Your task to perform on an android device: See recent photos Image 0: 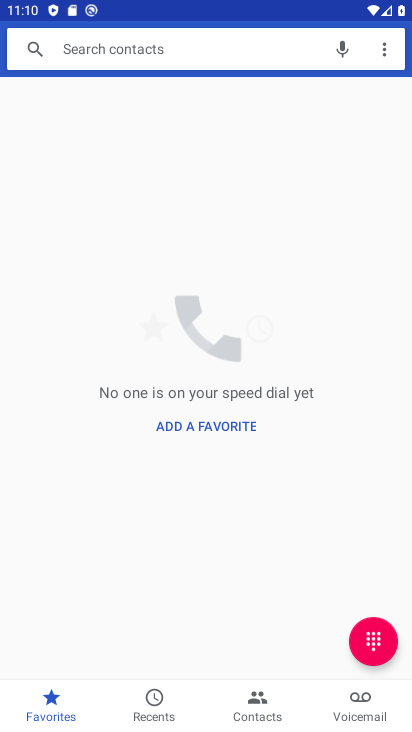
Step 0: press back button
Your task to perform on an android device: See recent photos Image 1: 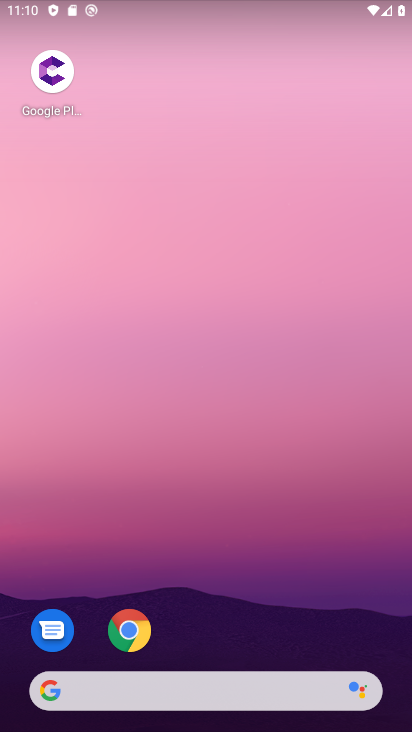
Step 1: drag from (153, 662) to (282, 44)
Your task to perform on an android device: See recent photos Image 2: 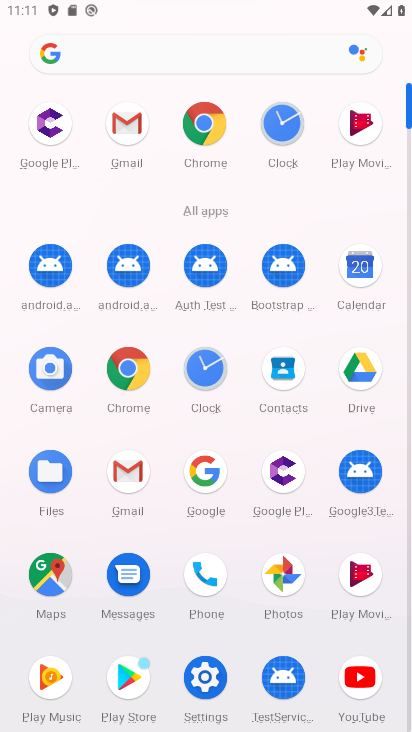
Step 2: click (283, 588)
Your task to perform on an android device: See recent photos Image 3: 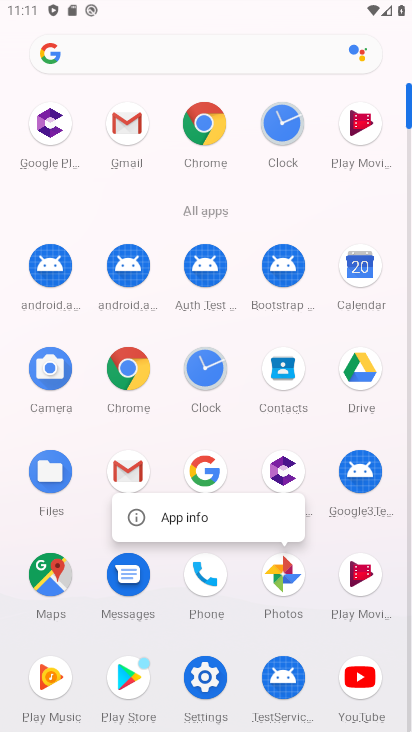
Step 3: click (264, 578)
Your task to perform on an android device: See recent photos Image 4: 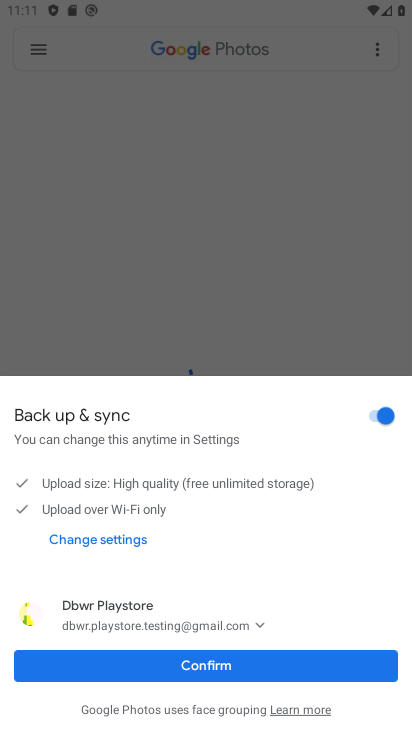
Step 4: click (249, 668)
Your task to perform on an android device: See recent photos Image 5: 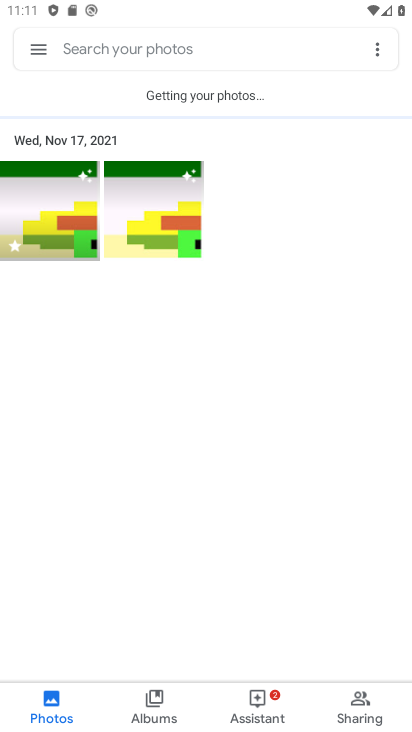
Step 5: task complete